Your task to perform on an android device: change the clock style Image 0: 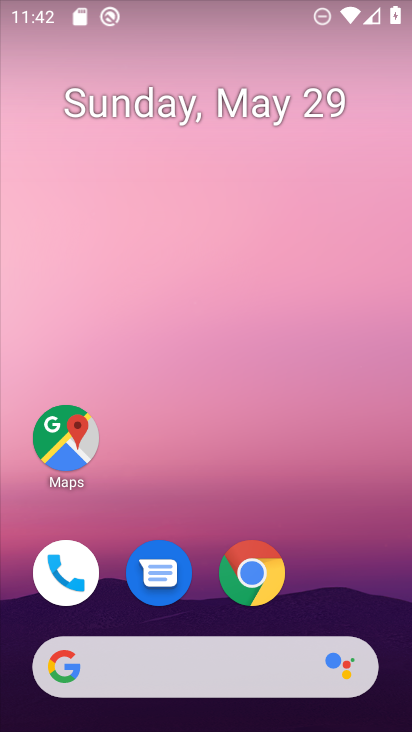
Step 0: drag from (374, 607) to (328, 164)
Your task to perform on an android device: change the clock style Image 1: 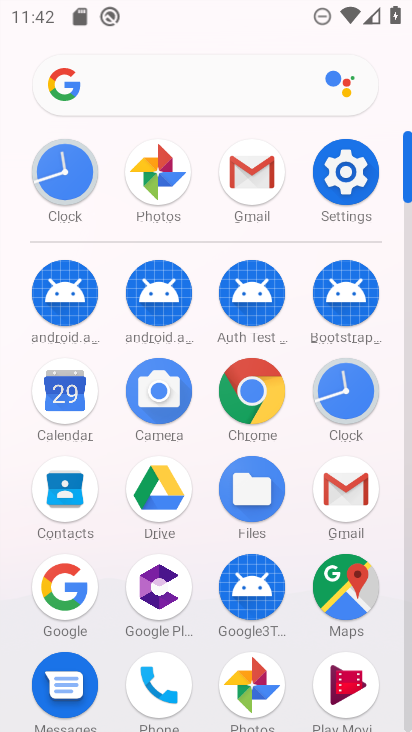
Step 1: click (59, 172)
Your task to perform on an android device: change the clock style Image 2: 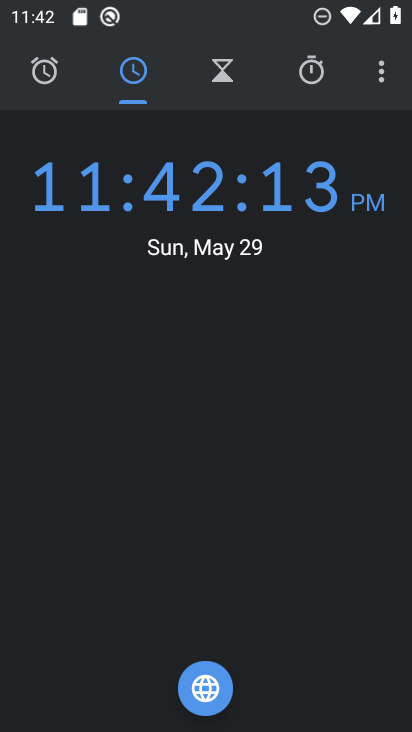
Step 2: click (385, 73)
Your task to perform on an android device: change the clock style Image 3: 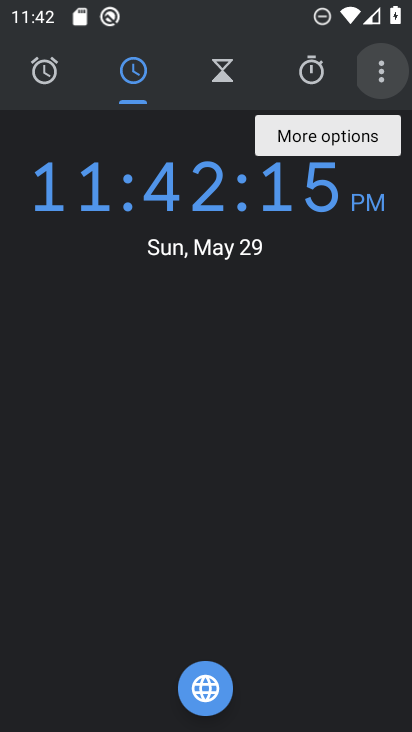
Step 3: click (382, 76)
Your task to perform on an android device: change the clock style Image 4: 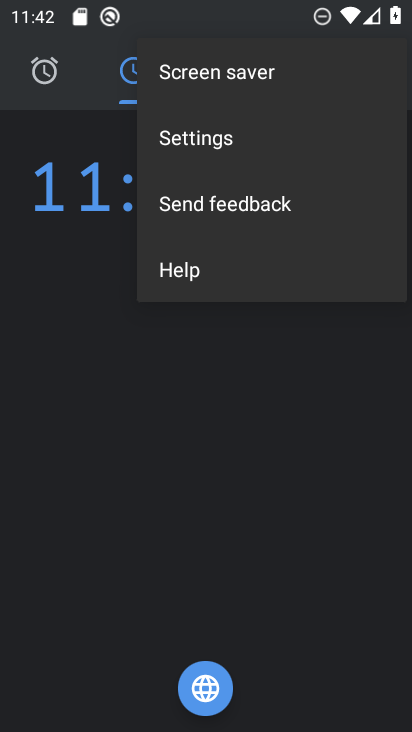
Step 4: click (200, 149)
Your task to perform on an android device: change the clock style Image 5: 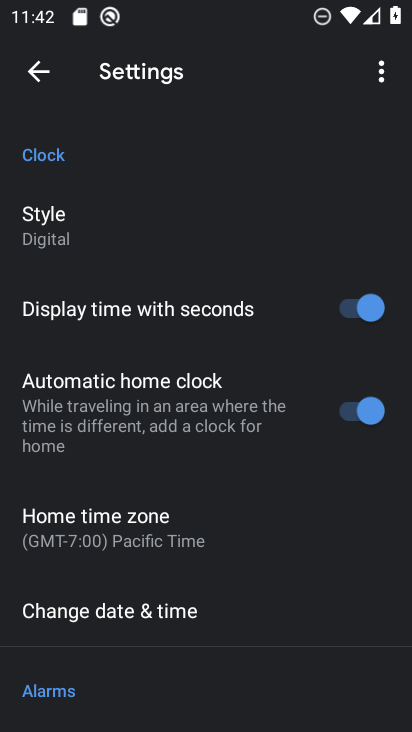
Step 5: click (42, 235)
Your task to perform on an android device: change the clock style Image 6: 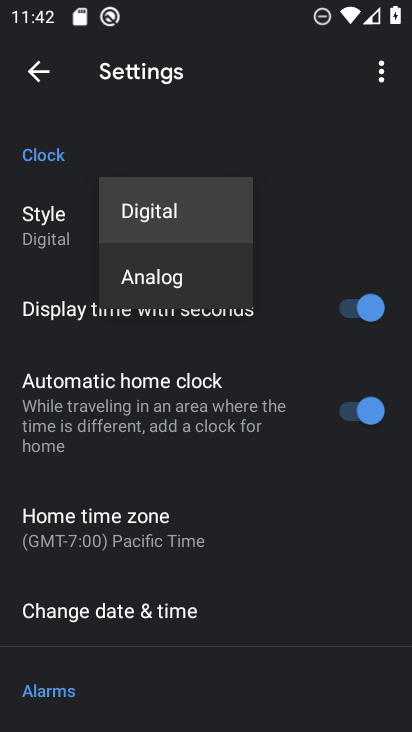
Step 6: click (151, 278)
Your task to perform on an android device: change the clock style Image 7: 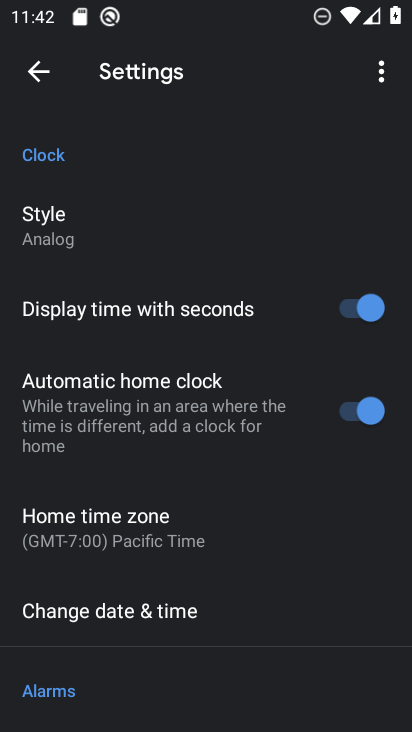
Step 7: task complete